Your task to perform on an android device: delete the emails in spam in the gmail app Image 0: 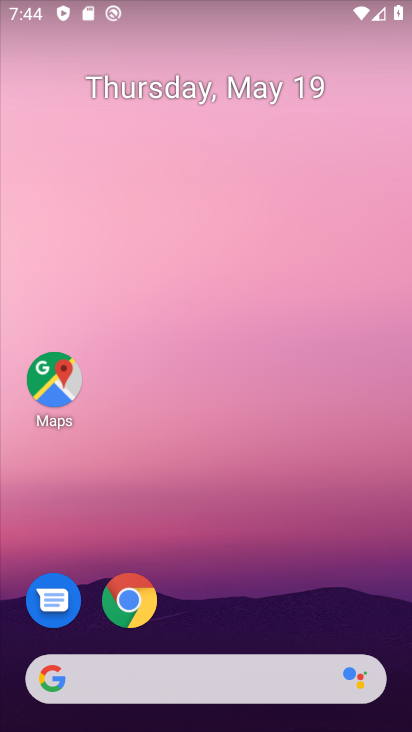
Step 0: drag from (358, 632) to (346, 6)
Your task to perform on an android device: delete the emails in spam in the gmail app Image 1: 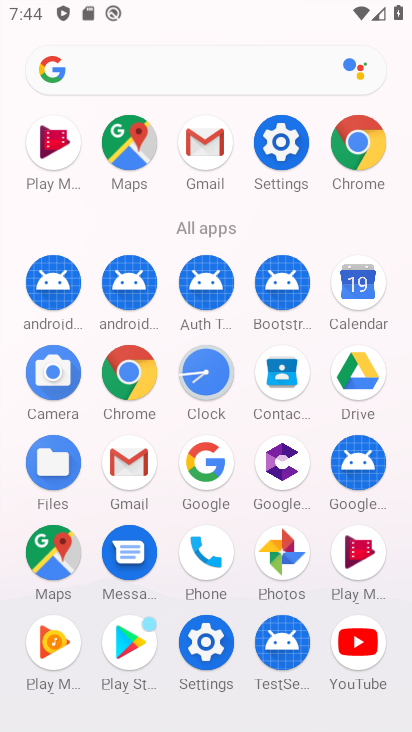
Step 1: click (203, 141)
Your task to perform on an android device: delete the emails in spam in the gmail app Image 2: 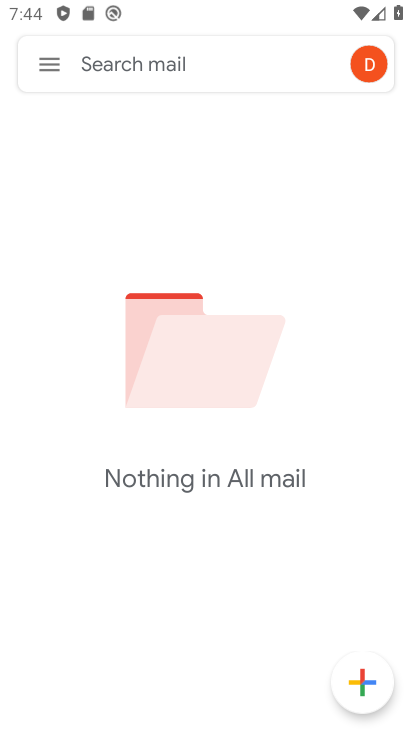
Step 2: click (33, 68)
Your task to perform on an android device: delete the emails in spam in the gmail app Image 3: 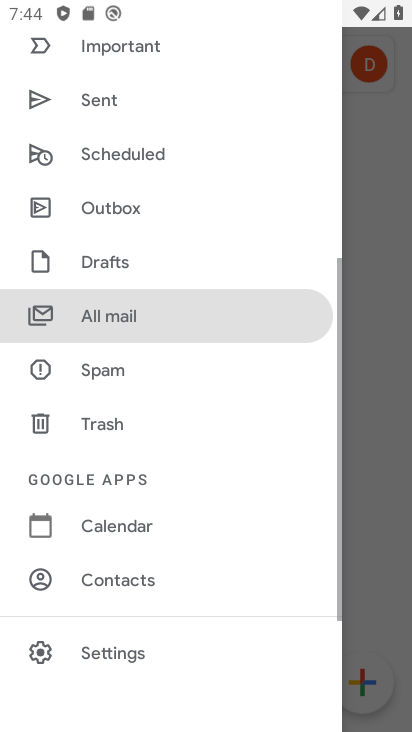
Step 3: click (85, 366)
Your task to perform on an android device: delete the emails in spam in the gmail app Image 4: 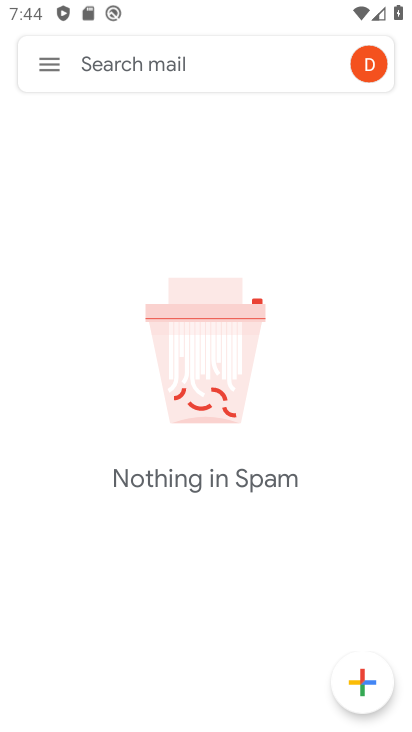
Step 4: task complete